Your task to perform on an android device: Toggle the flashlight Image 0: 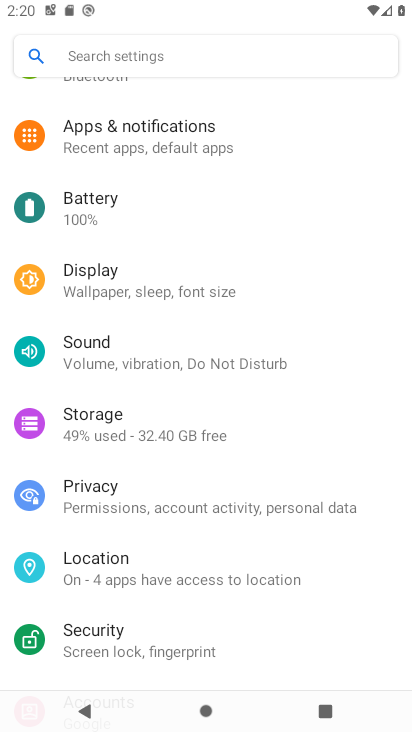
Step 0: drag from (234, 11) to (203, 520)
Your task to perform on an android device: Toggle the flashlight Image 1: 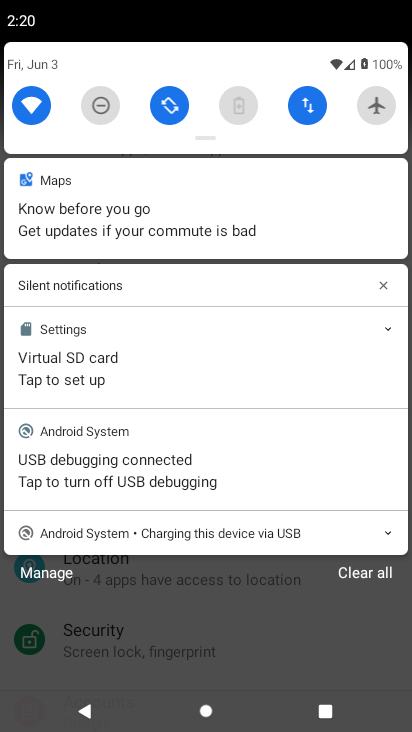
Step 1: task complete